Your task to perform on an android device: Find coffee shops on Maps Image 0: 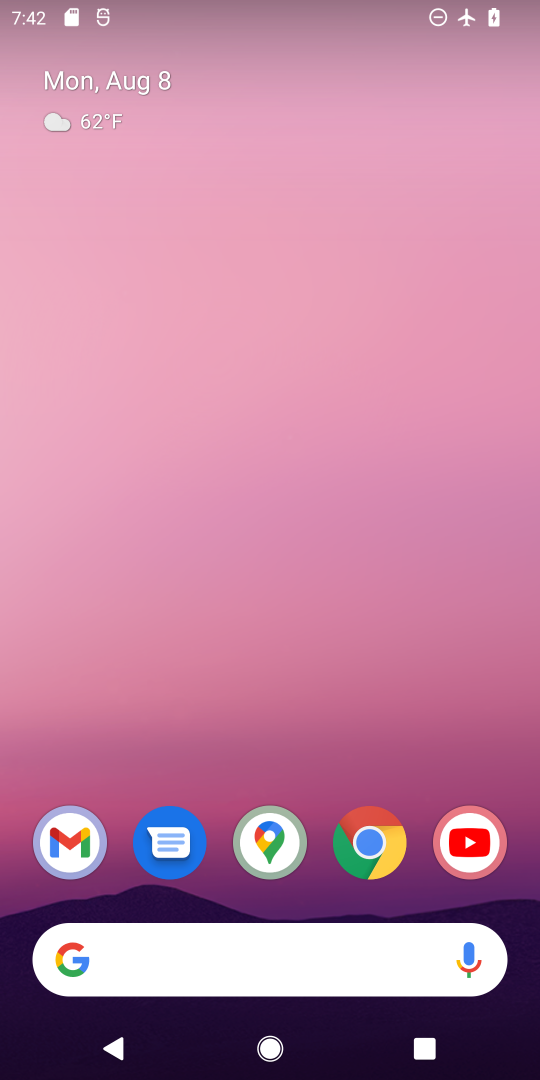
Step 0: click (222, 847)
Your task to perform on an android device: Find coffee shops on Maps Image 1: 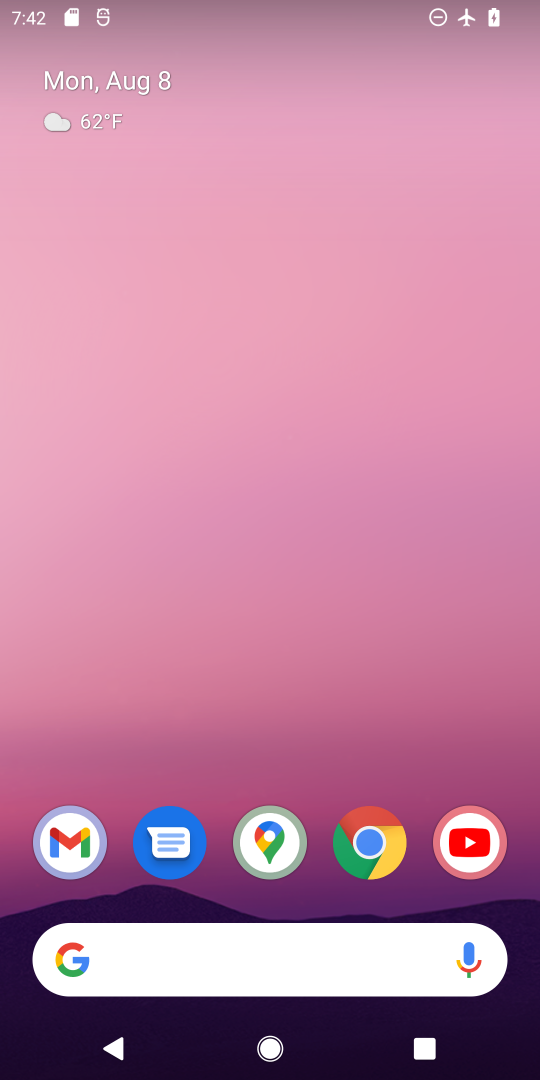
Step 1: click (244, 828)
Your task to perform on an android device: Find coffee shops on Maps Image 2: 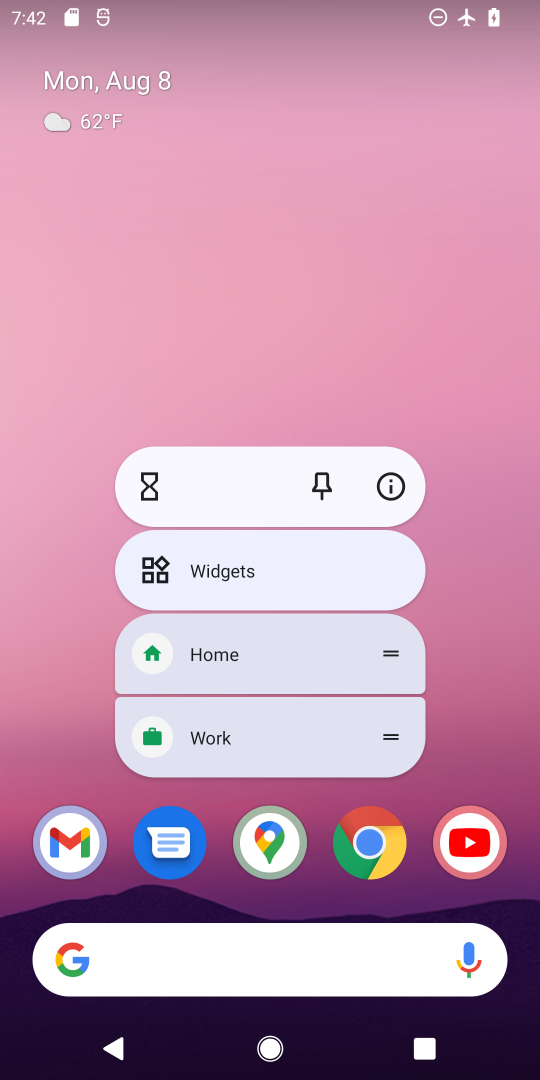
Step 2: click (273, 864)
Your task to perform on an android device: Find coffee shops on Maps Image 3: 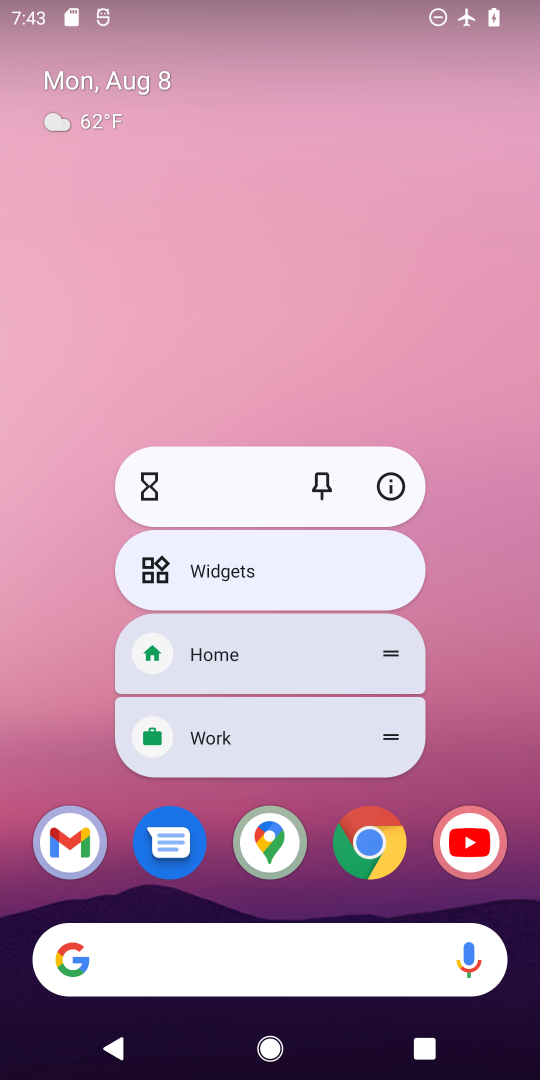
Step 3: click (285, 843)
Your task to perform on an android device: Find coffee shops on Maps Image 4: 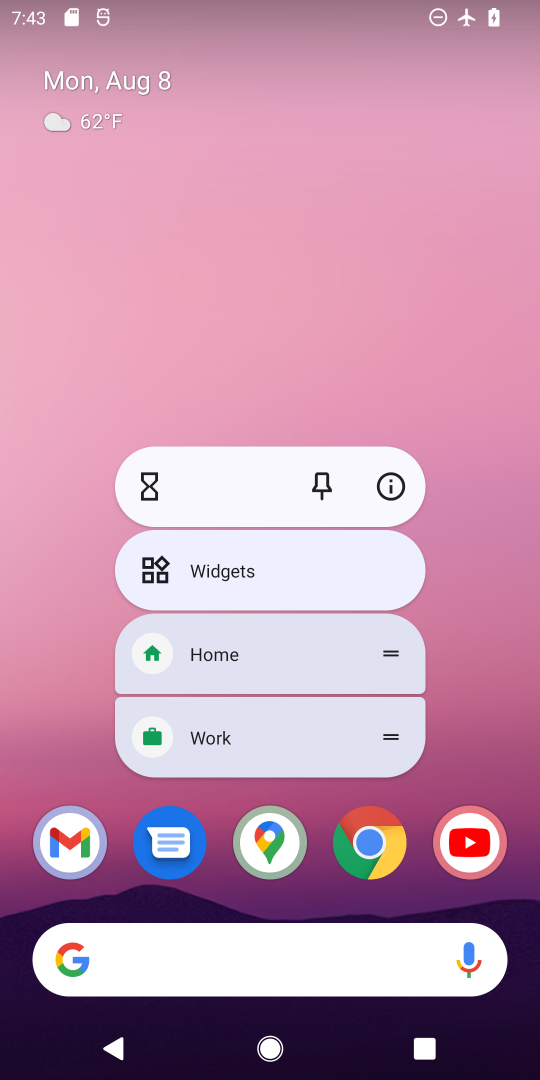
Step 4: click (281, 852)
Your task to perform on an android device: Find coffee shops on Maps Image 5: 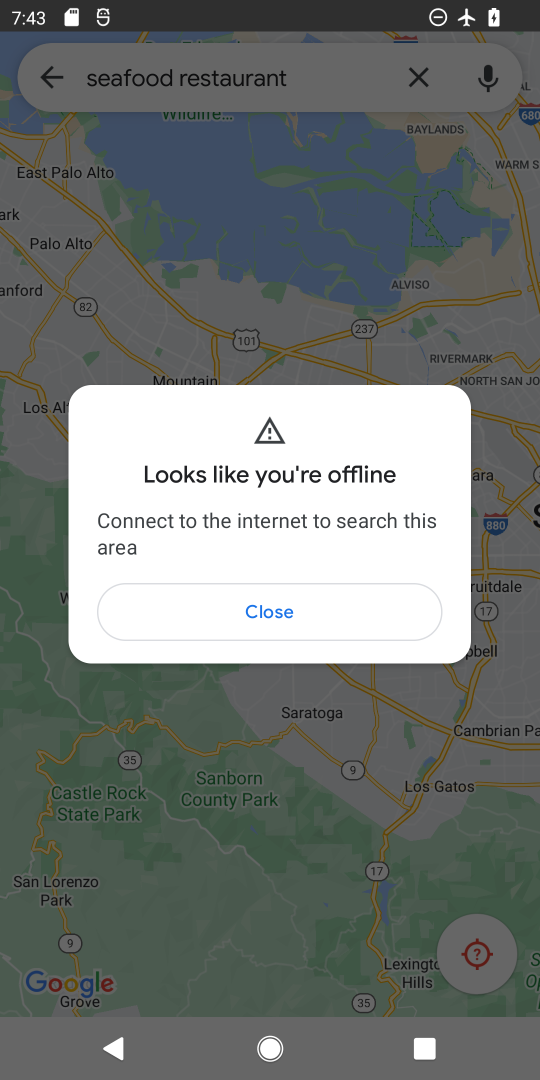
Step 5: click (266, 614)
Your task to perform on an android device: Find coffee shops on Maps Image 6: 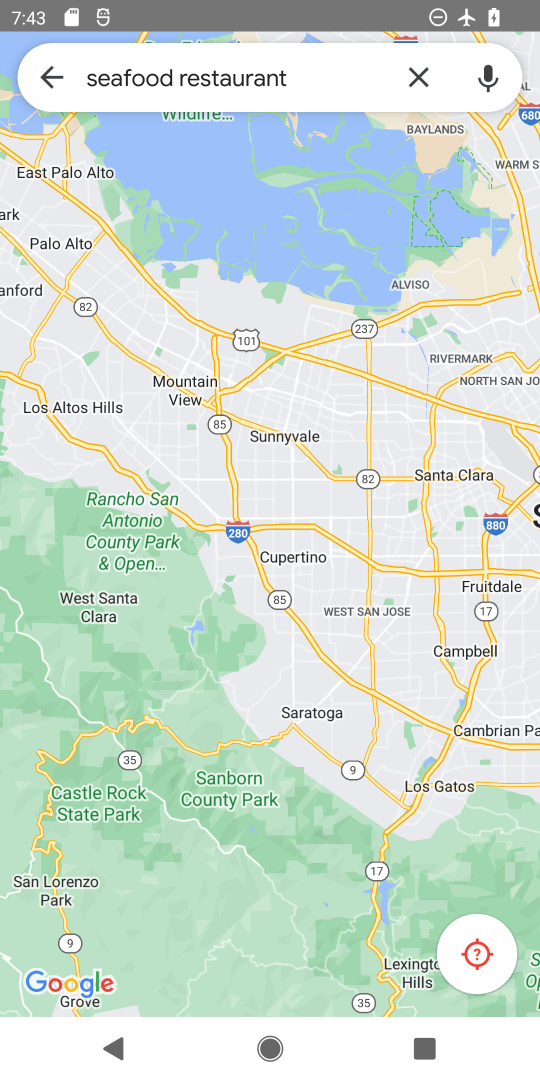
Step 6: click (415, 68)
Your task to perform on an android device: Find coffee shops on Maps Image 7: 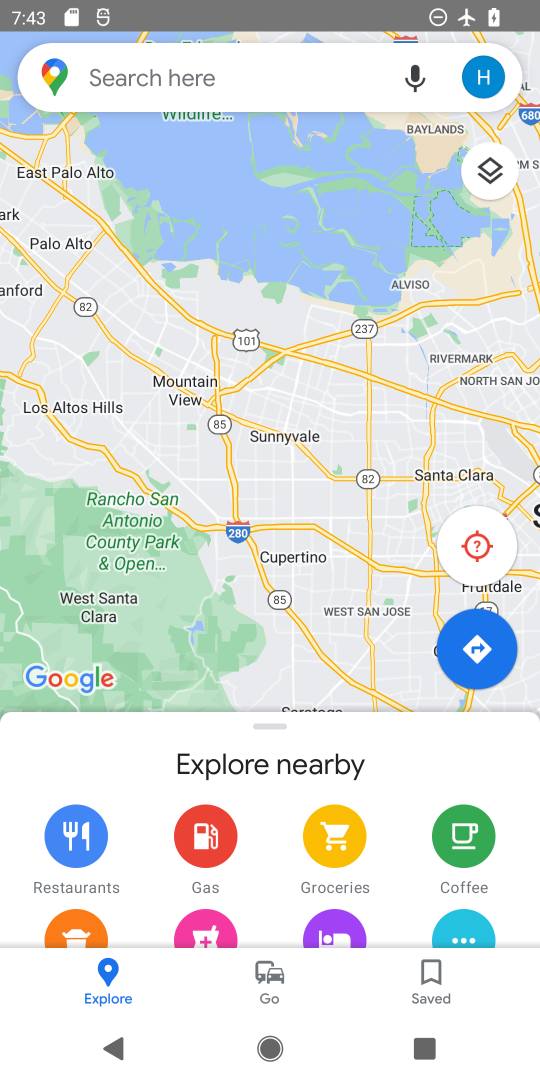
Step 7: click (128, 63)
Your task to perform on an android device: Find coffee shops on Maps Image 8: 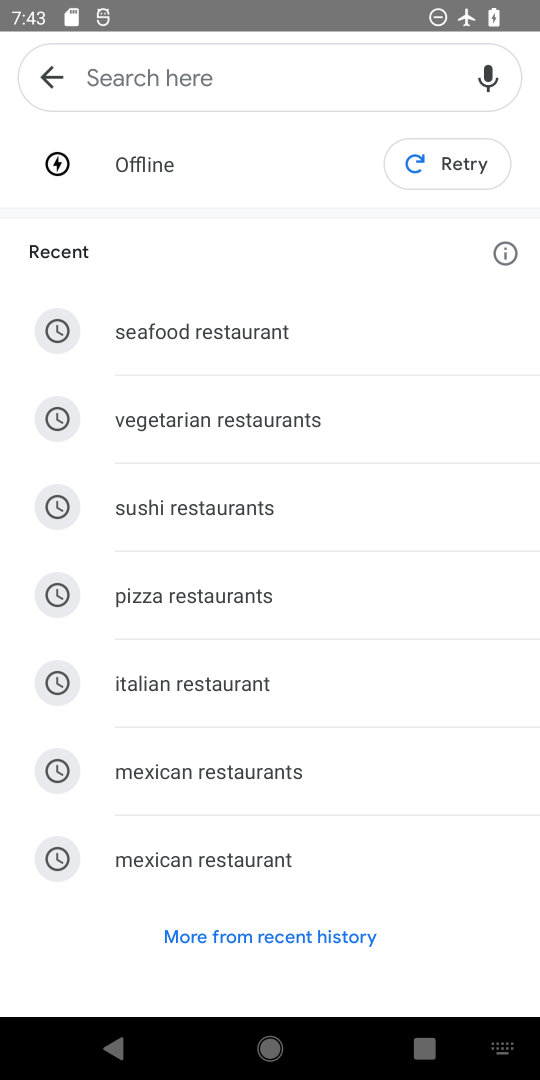
Step 8: click (249, 949)
Your task to perform on an android device: Find coffee shops on Maps Image 9: 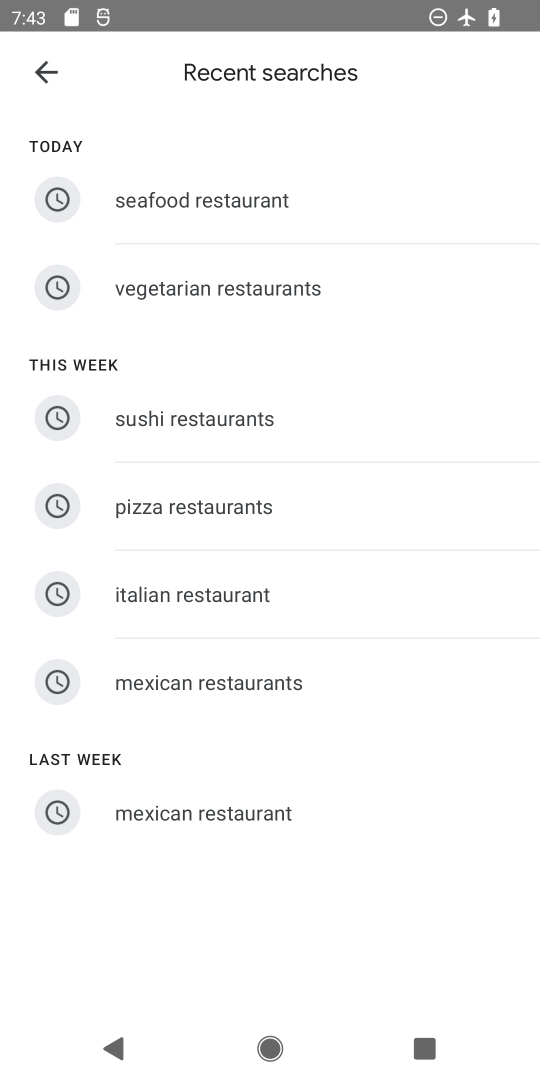
Step 9: task complete